Your task to perform on an android device: change your default location settings in chrome Image 0: 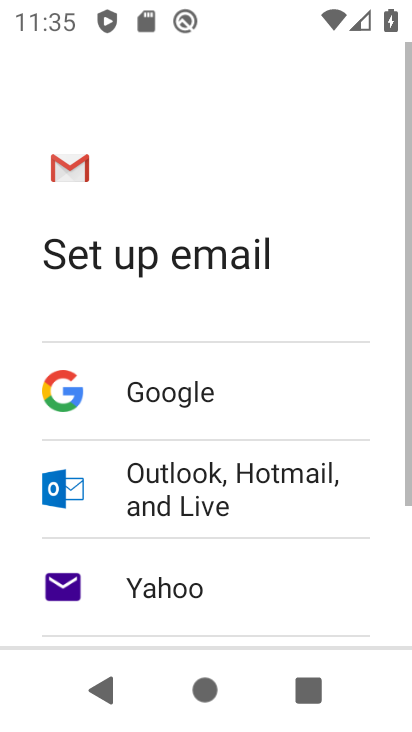
Step 0: press home button
Your task to perform on an android device: change your default location settings in chrome Image 1: 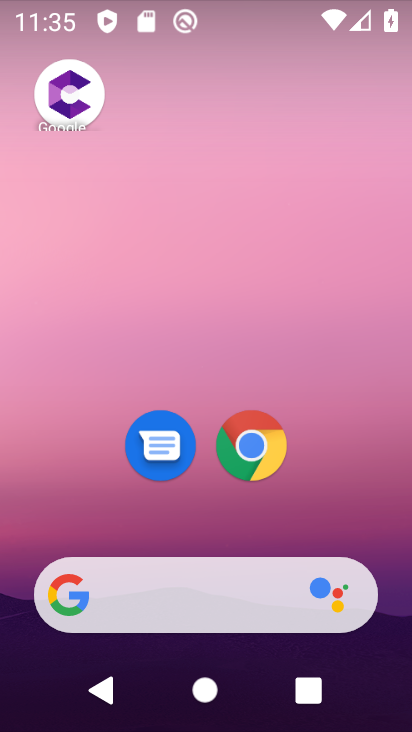
Step 1: click (250, 438)
Your task to perform on an android device: change your default location settings in chrome Image 2: 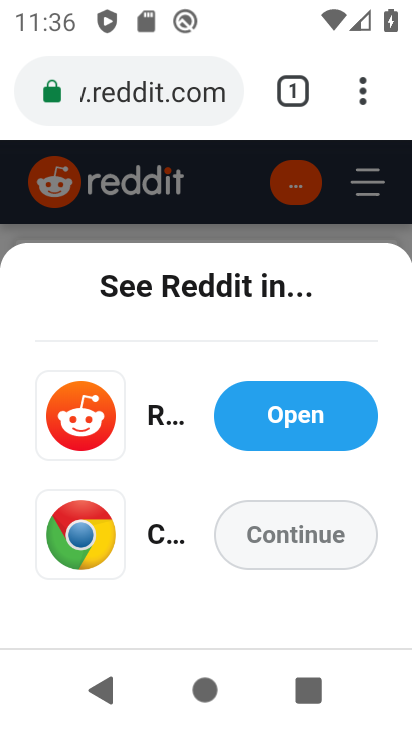
Step 2: click (358, 96)
Your task to perform on an android device: change your default location settings in chrome Image 3: 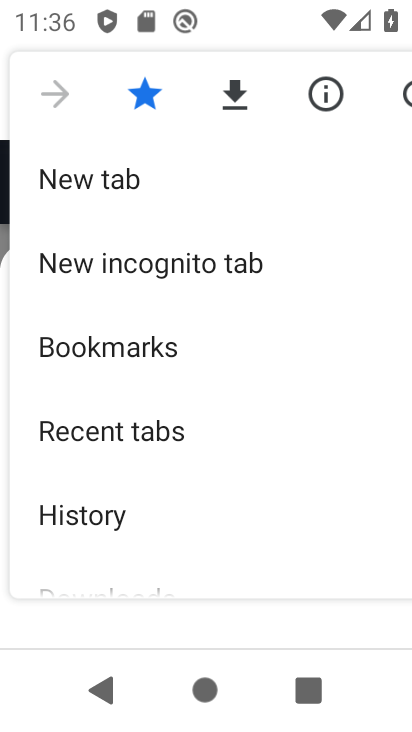
Step 3: drag from (189, 545) to (210, 44)
Your task to perform on an android device: change your default location settings in chrome Image 4: 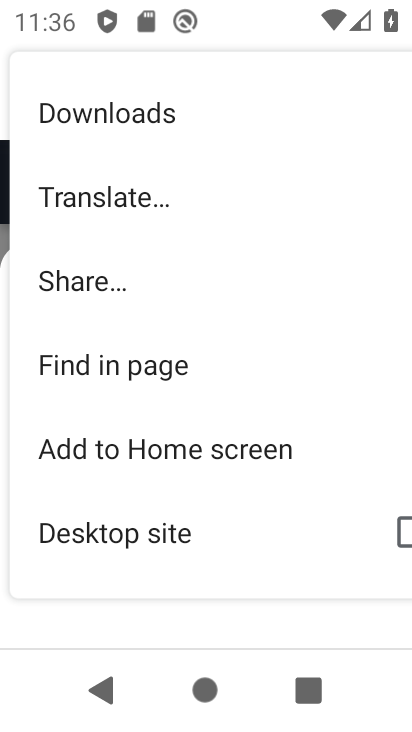
Step 4: drag from (202, 540) to (220, 111)
Your task to perform on an android device: change your default location settings in chrome Image 5: 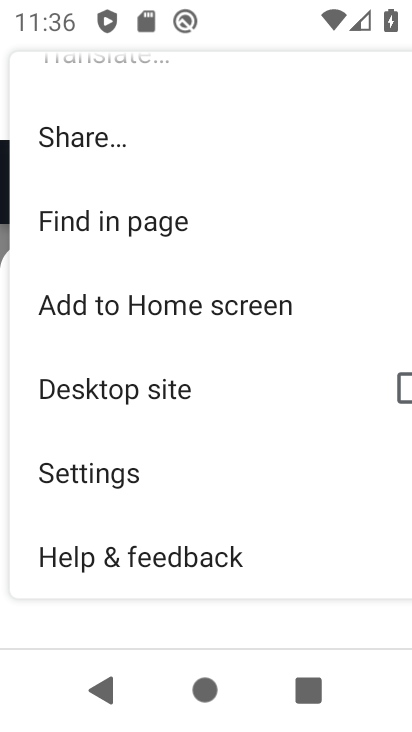
Step 5: click (159, 456)
Your task to perform on an android device: change your default location settings in chrome Image 6: 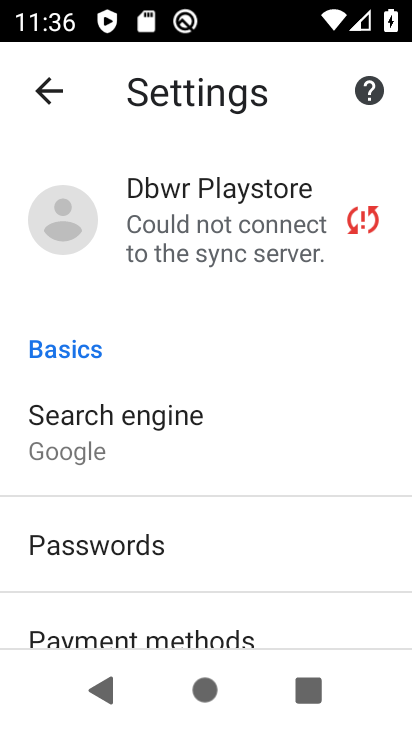
Step 6: drag from (238, 594) to (253, 177)
Your task to perform on an android device: change your default location settings in chrome Image 7: 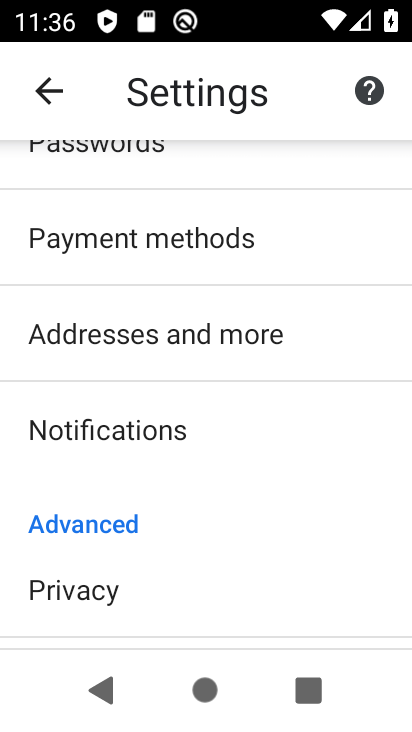
Step 7: drag from (189, 568) to (190, 208)
Your task to perform on an android device: change your default location settings in chrome Image 8: 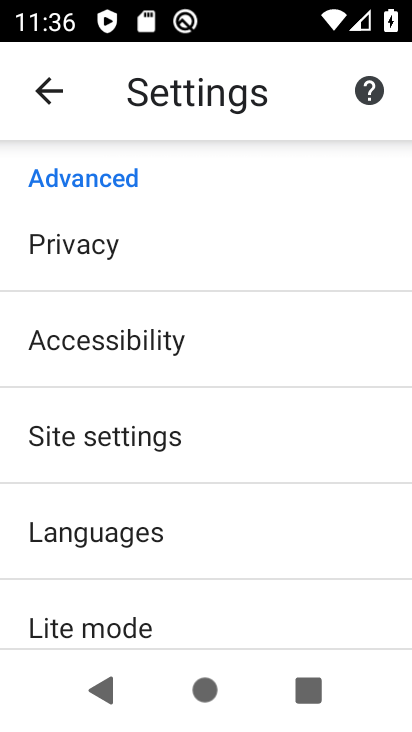
Step 8: click (185, 437)
Your task to perform on an android device: change your default location settings in chrome Image 9: 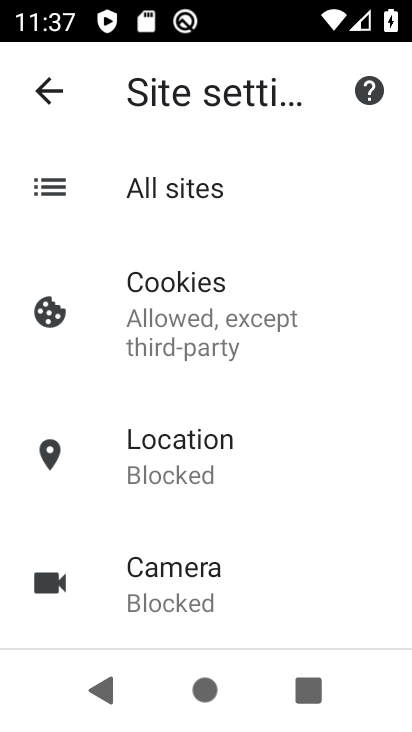
Step 9: drag from (243, 592) to (242, 313)
Your task to perform on an android device: change your default location settings in chrome Image 10: 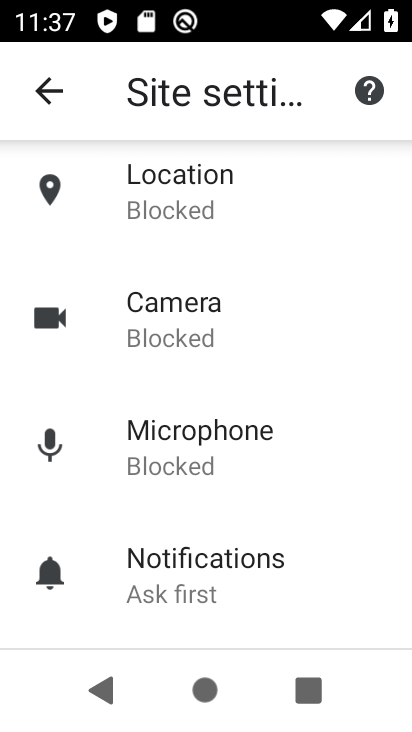
Step 10: drag from (233, 595) to (225, 262)
Your task to perform on an android device: change your default location settings in chrome Image 11: 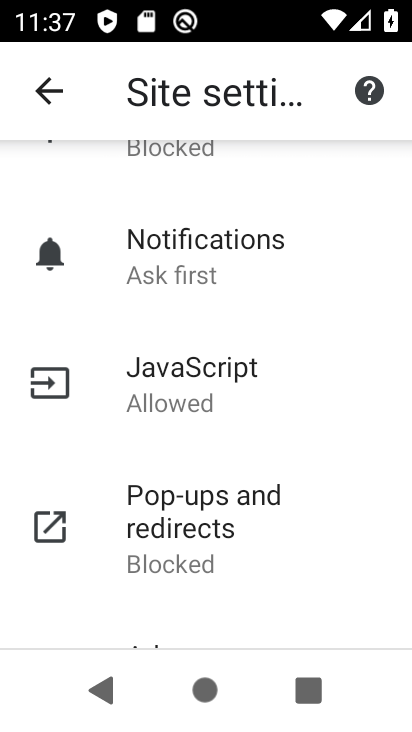
Step 11: drag from (212, 196) to (229, 506)
Your task to perform on an android device: change your default location settings in chrome Image 12: 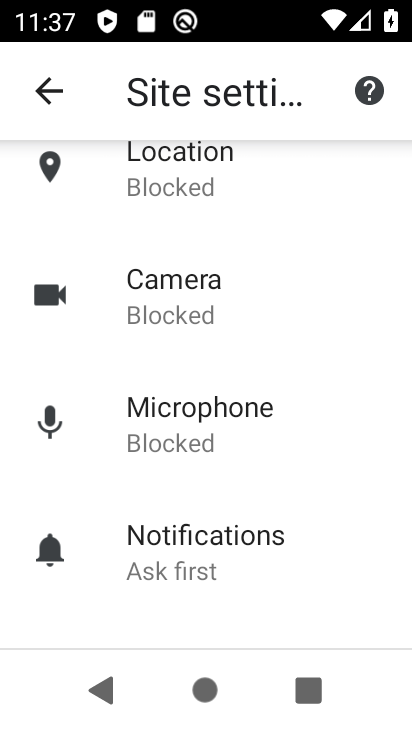
Step 12: click (195, 173)
Your task to perform on an android device: change your default location settings in chrome Image 13: 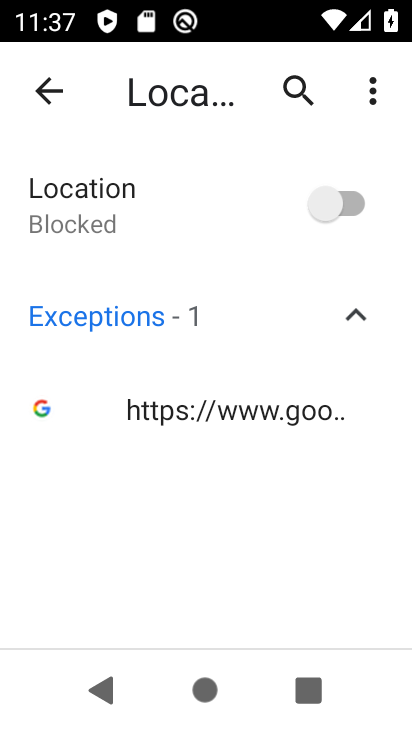
Step 13: click (337, 195)
Your task to perform on an android device: change your default location settings in chrome Image 14: 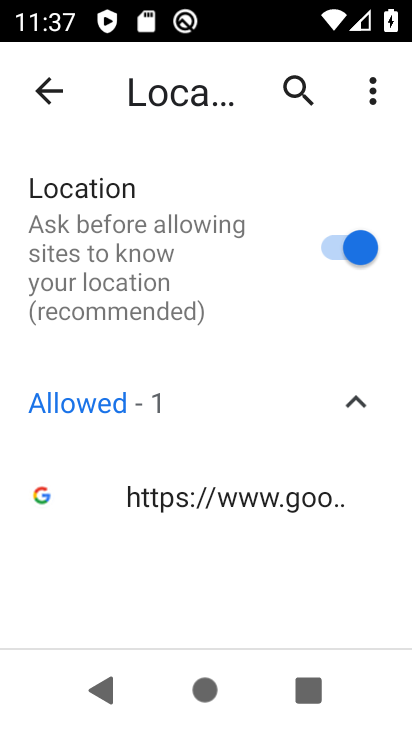
Step 14: task complete